Your task to perform on an android device: check google app version Image 0: 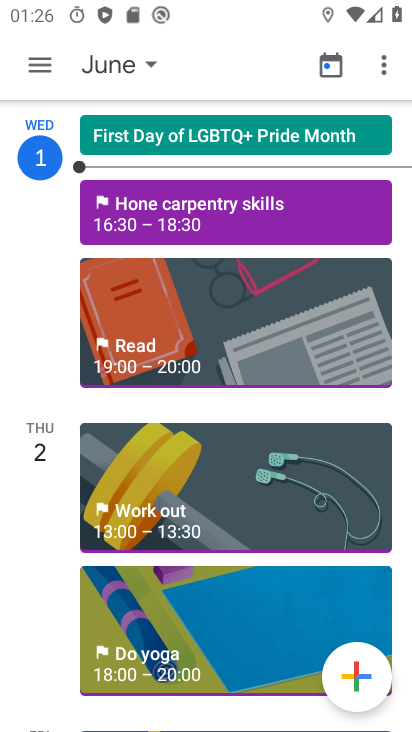
Step 0: press home button
Your task to perform on an android device: check google app version Image 1: 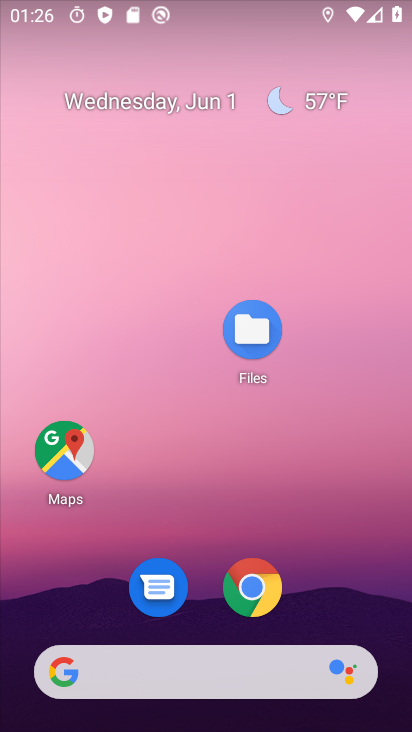
Step 1: drag from (336, 630) to (350, 65)
Your task to perform on an android device: check google app version Image 2: 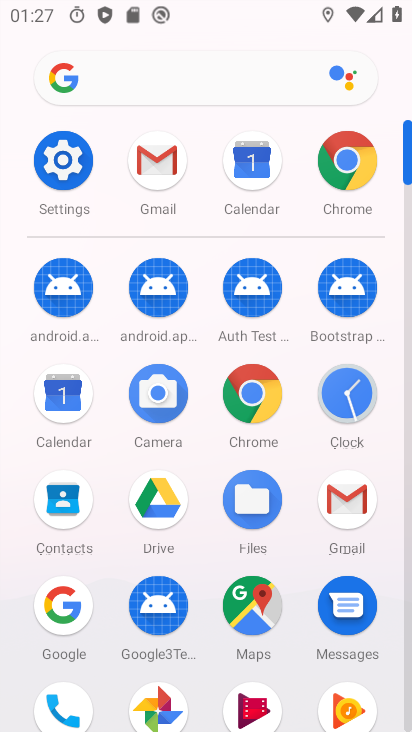
Step 2: click (47, 606)
Your task to perform on an android device: check google app version Image 3: 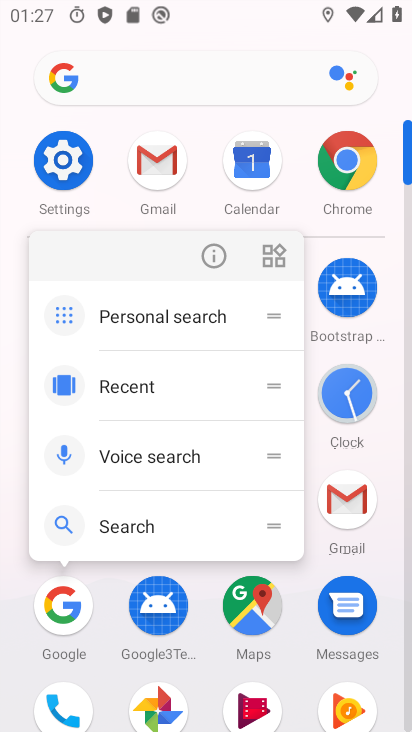
Step 3: click (208, 260)
Your task to perform on an android device: check google app version Image 4: 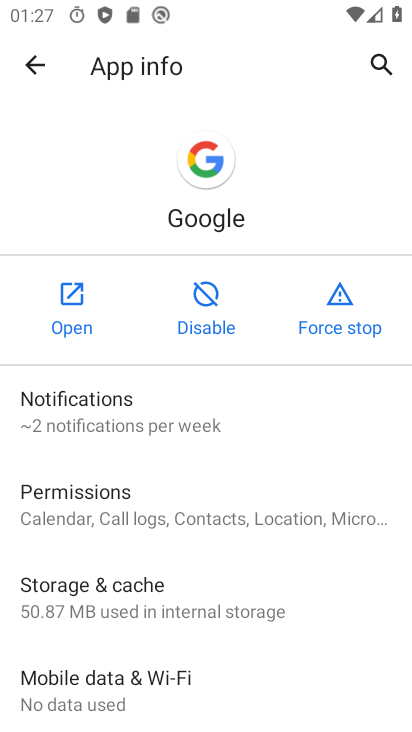
Step 4: drag from (236, 686) to (206, 229)
Your task to perform on an android device: check google app version Image 5: 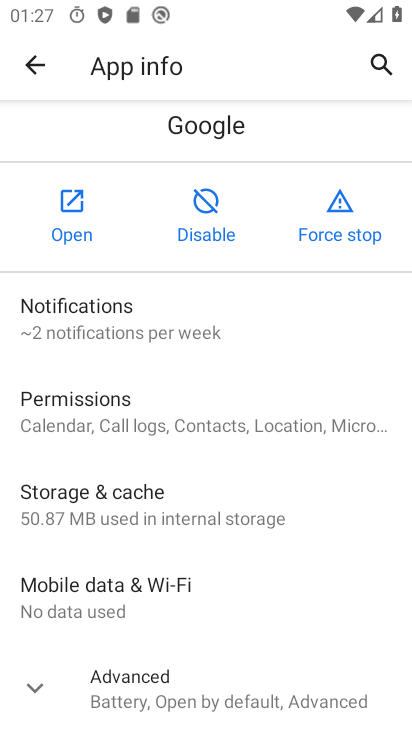
Step 5: click (164, 671)
Your task to perform on an android device: check google app version Image 6: 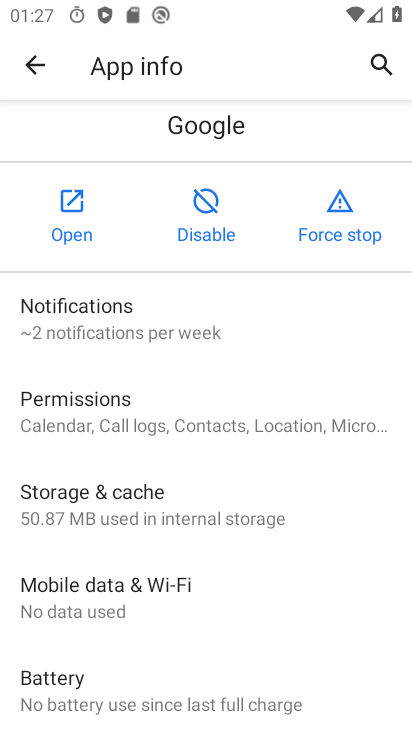
Step 6: task complete